Your task to perform on an android device: toggle data saver in the chrome app Image 0: 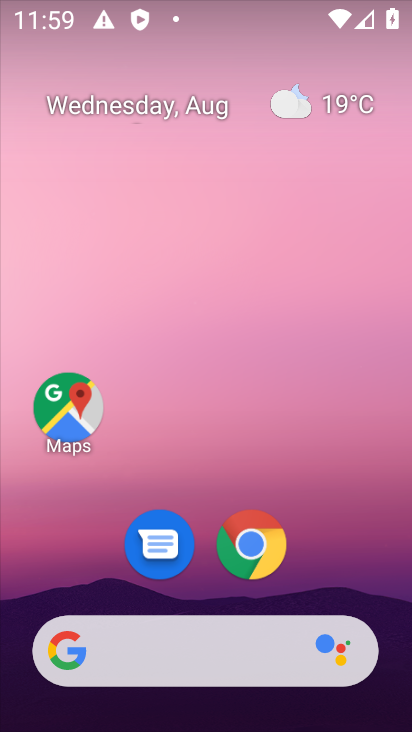
Step 0: click (251, 538)
Your task to perform on an android device: toggle data saver in the chrome app Image 1: 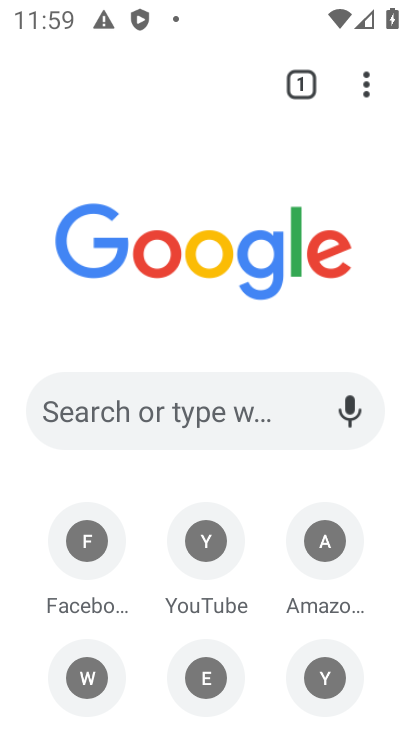
Step 1: click (364, 82)
Your task to perform on an android device: toggle data saver in the chrome app Image 2: 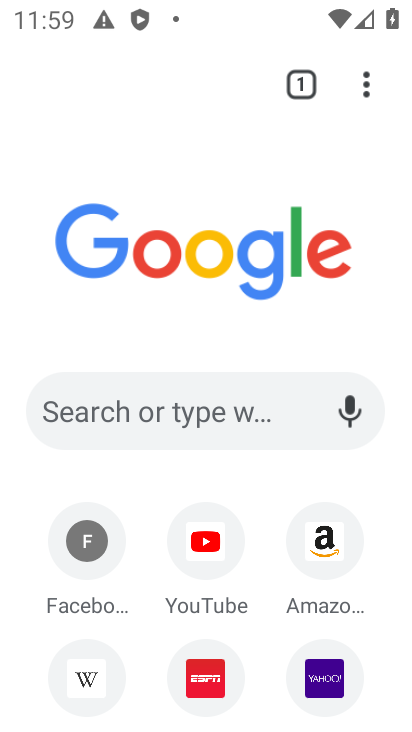
Step 2: click (364, 82)
Your task to perform on an android device: toggle data saver in the chrome app Image 3: 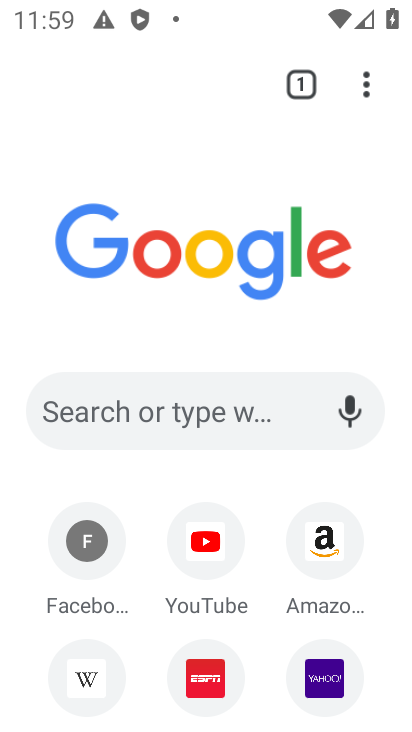
Step 3: click (364, 82)
Your task to perform on an android device: toggle data saver in the chrome app Image 4: 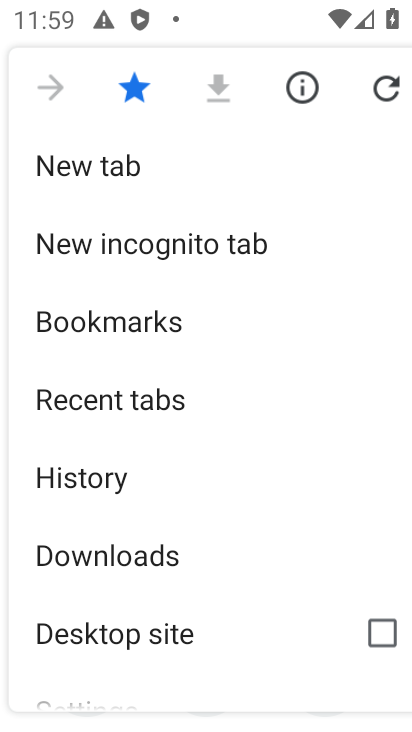
Step 4: drag from (277, 612) to (300, 212)
Your task to perform on an android device: toggle data saver in the chrome app Image 5: 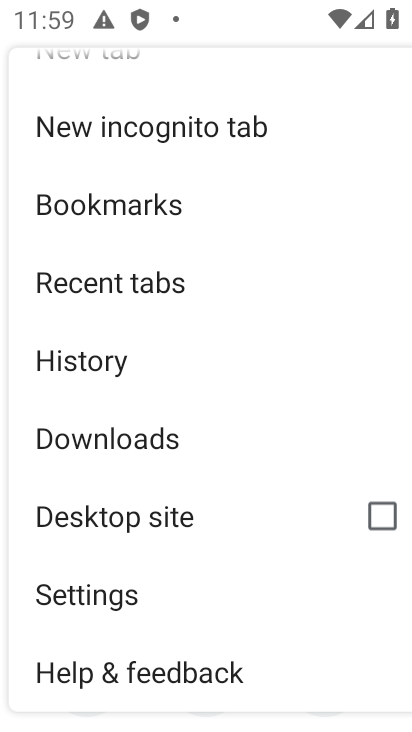
Step 5: click (86, 601)
Your task to perform on an android device: toggle data saver in the chrome app Image 6: 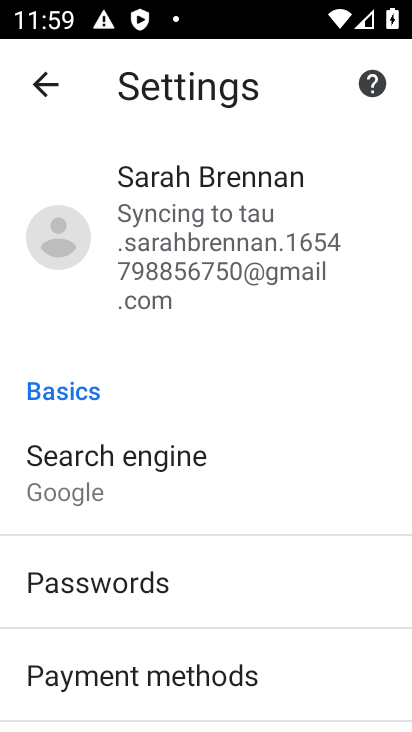
Step 6: drag from (300, 702) to (315, 240)
Your task to perform on an android device: toggle data saver in the chrome app Image 7: 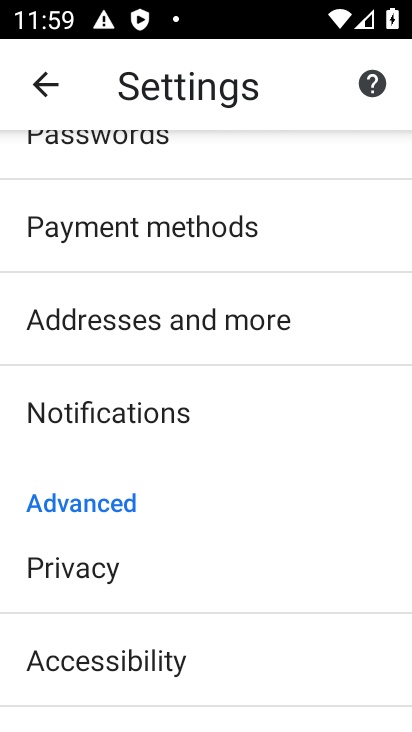
Step 7: drag from (313, 678) to (332, 255)
Your task to perform on an android device: toggle data saver in the chrome app Image 8: 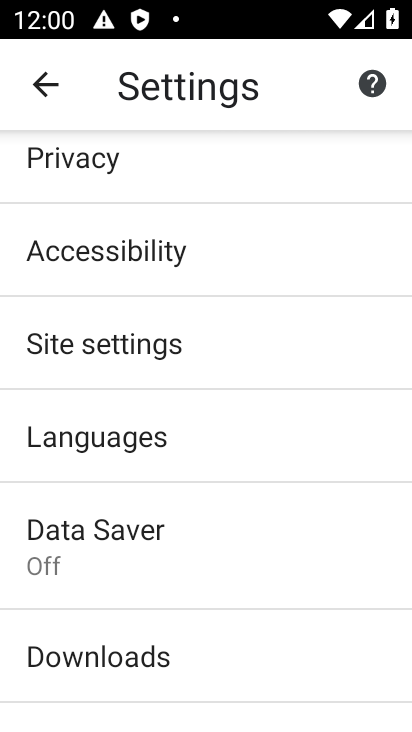
Step 8: click (99, 548)
Your task to perform on an android device: toggle data saver in the chrome app Image 9: 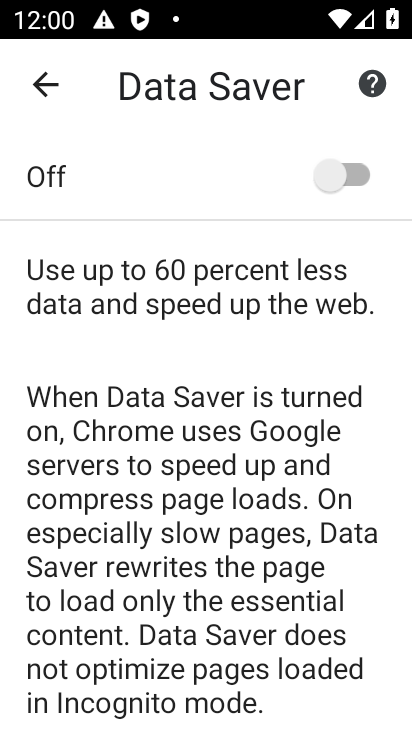
Step 9: click (346, 182)
Your task to perform on an android device: toggle data saver in the chrome app Image 10: 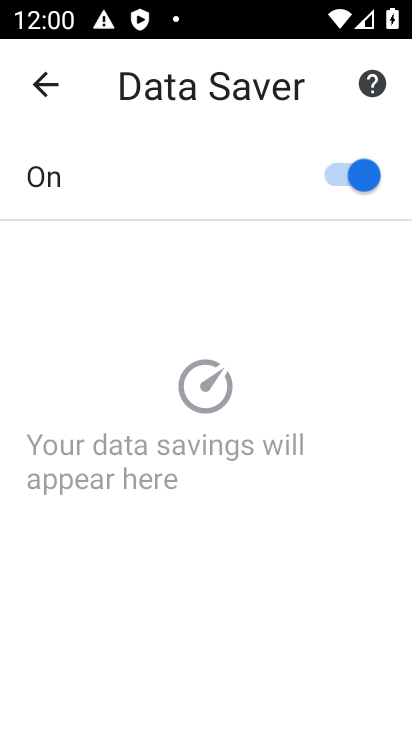
Step 10: task complete